Your task to perform on an android device: stop showing notifications on the lock screen Image 0: 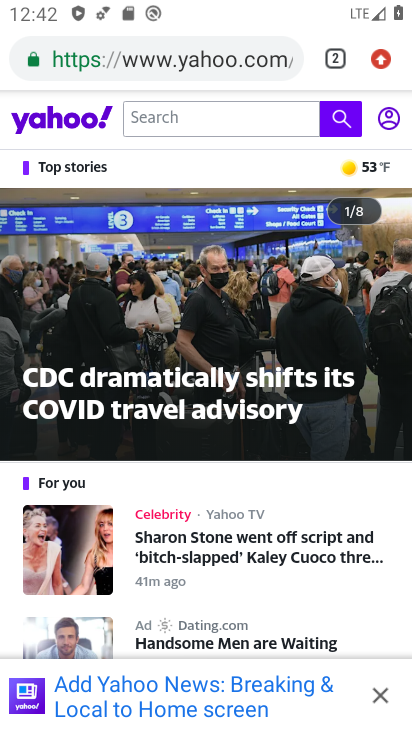
Step 0: press home button
Your task to perform on an android device: stop showing notifications on the lock screen Image 1: 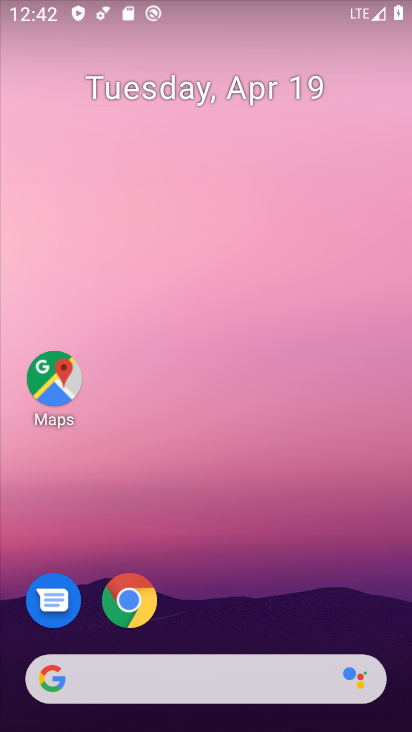
Step 1: drag from (238, 628) to (185, 21)
Your task to perform on an android device: stop showing notifications on the lock screen Image 2: 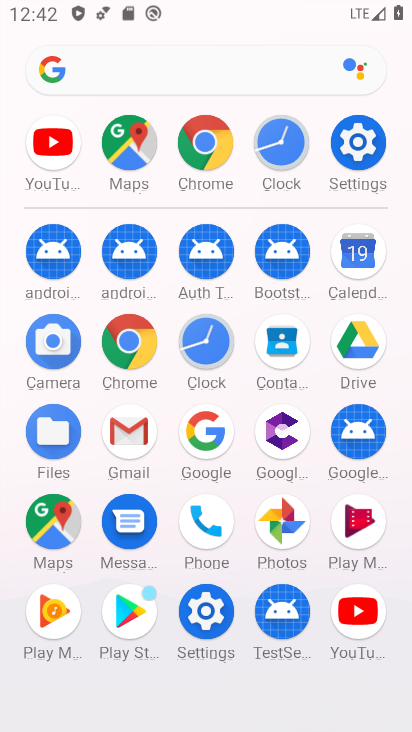
Step 2: click (198, 604)
Your task to perform on an android device: stop showing notifications on the lock screen Image 3: 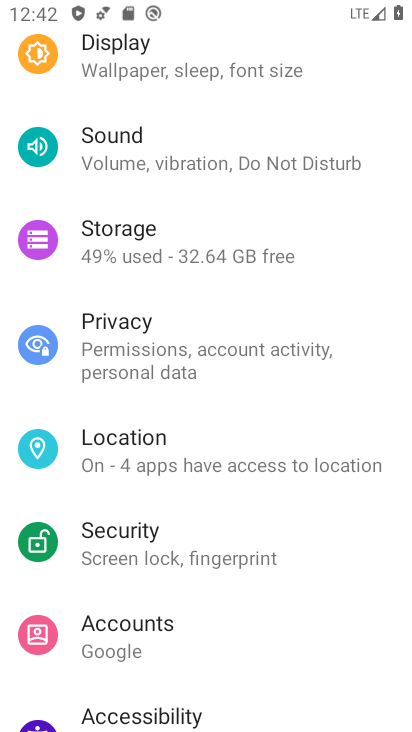
Step 3: drag from (207, 142) to (206, 486)
Your task to perform on an android device: stop showing notifications on the lock screen Image 4: 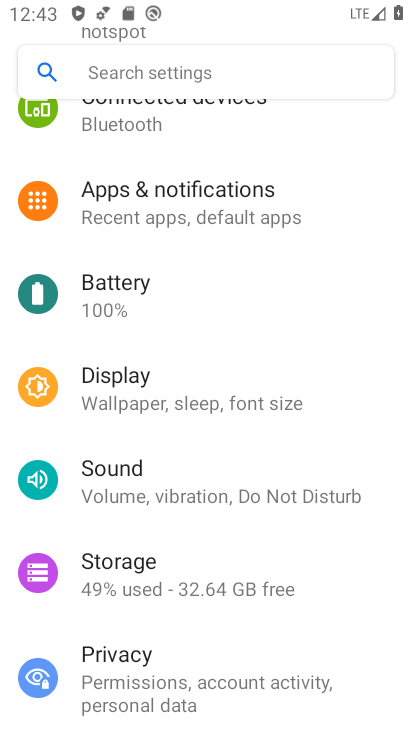
Step 4: click (195, 215)
Your task to perform on an android device: stop showing notifications on the lock screen Image 5: 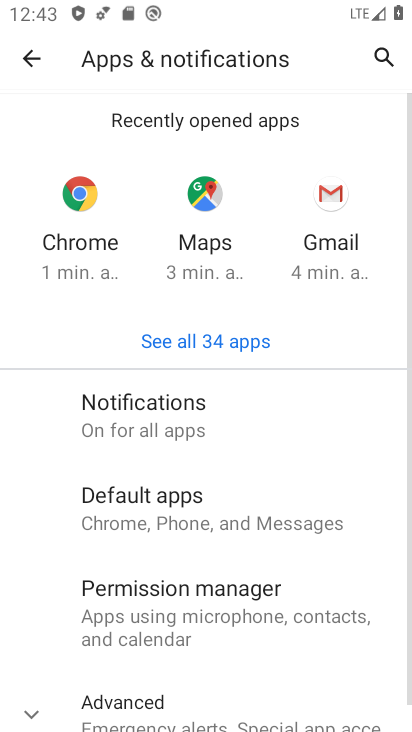
Step 5: drag from (204, 608) to (171, 206)
Your task to perform on an android device: stop showing notifications on the lock screen Image 6: 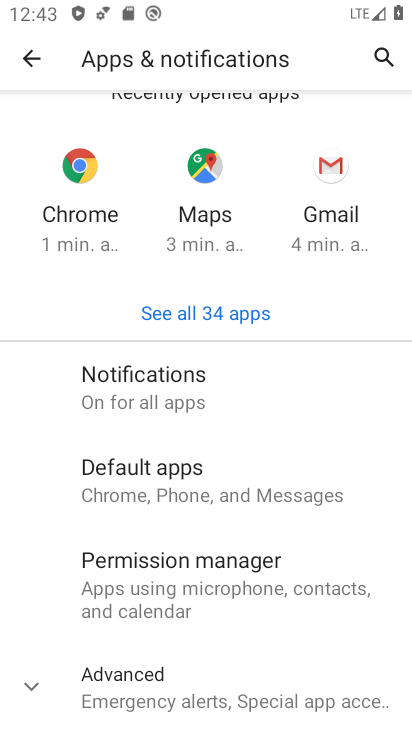
Step 6: click (145, 382)
Your task to perform on an android device: stop showing notifications on the lock screen Image 7: 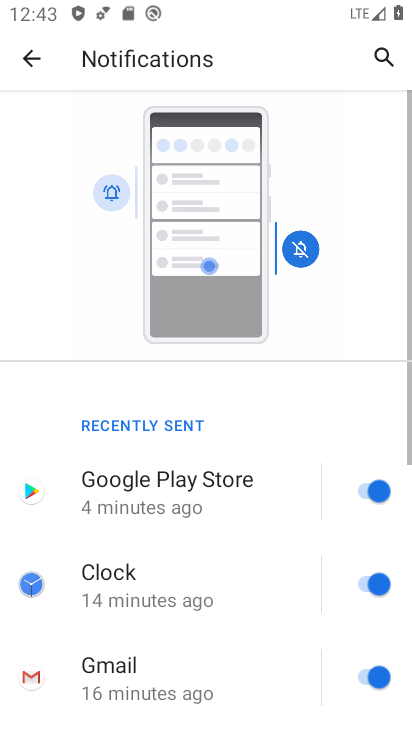
Step 7: drag from (198, 595) to (128, 1)
Your task to perform on an android device: stop showing notifications on the lock screen Image 8: 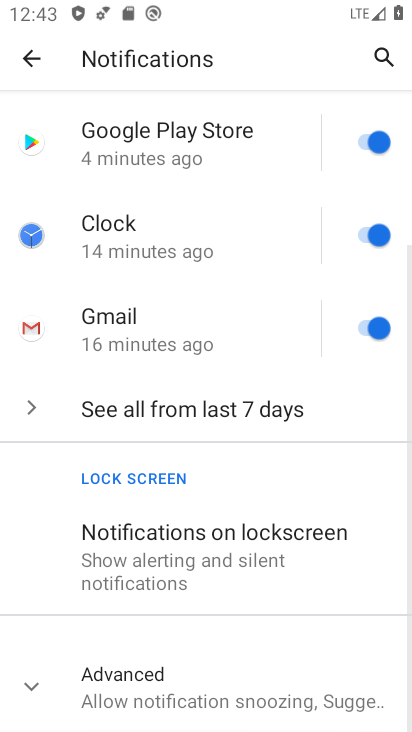
Step 8: click (172, 560)
Your task to perform on an android device: stop showing notifications on the lock screen Image 9: 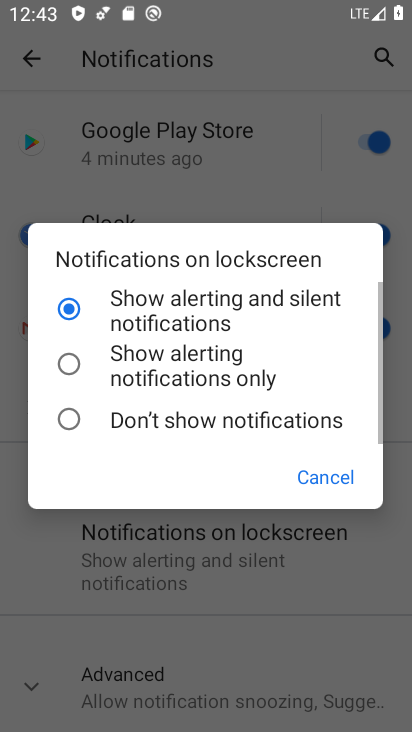
Step 9: click (197, 414)
Your task to perform on an android device: stop showing notifications on the lock screen Image 10: 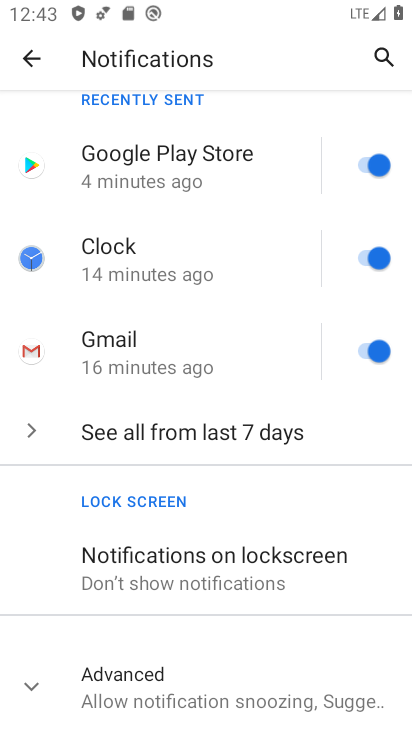
Step 10: task complete